Your task to perform on an android device: Set the phone to "Do not disturb". Image 0: 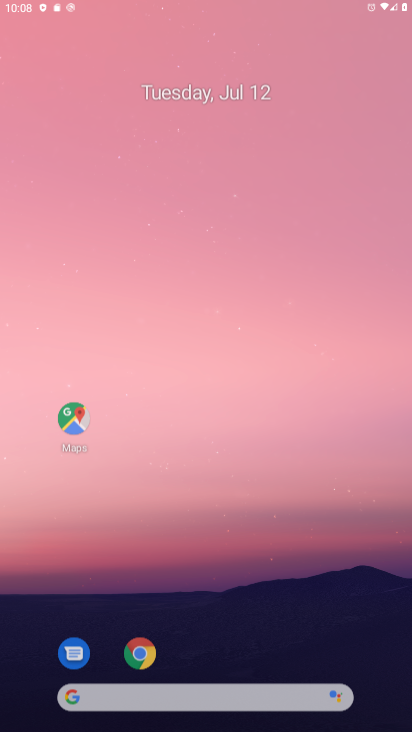
Step 0: click (201, 38)
Your task to perform on an android device: Set the phone to "Do not disturb". Image 1: 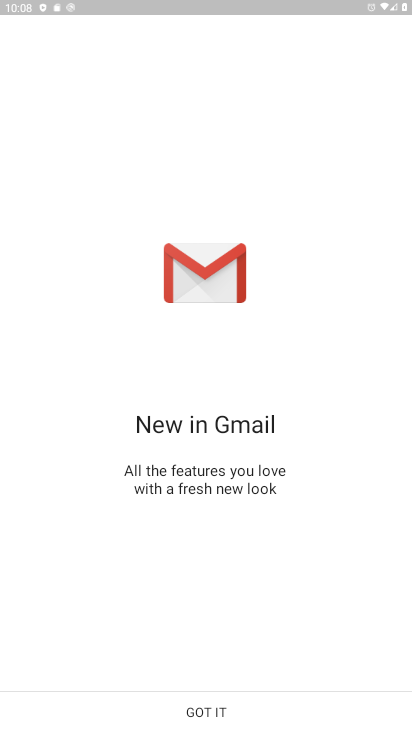
Step 1: press home button
Your task to perform on an android device: Set the phone to "Do not disturb". Image 2: 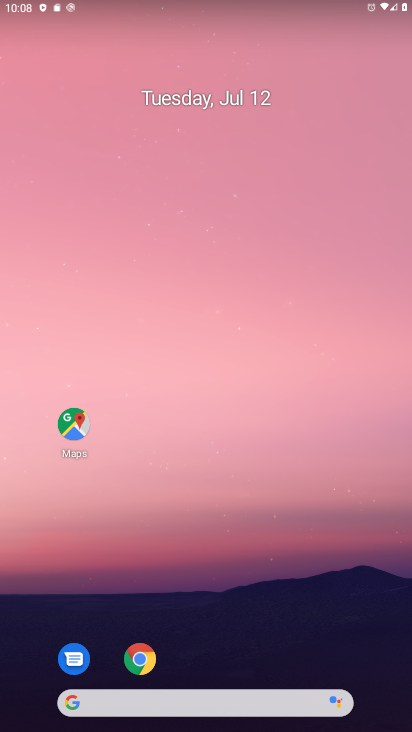
Step 2: drag from (192, 701) to (185, 82)
Your task to perform on an android device: Set the phone to "Do not disturb". Image 3: 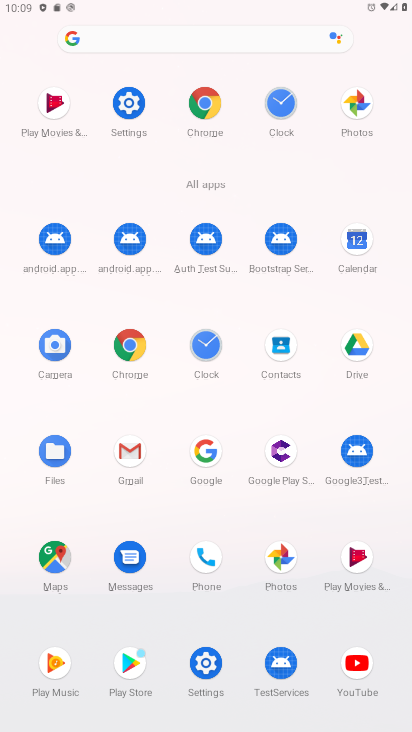
Step 3: click (130, 95)
Your task to perform on an android device: Set the phone to "Do not disturb". Image 4: 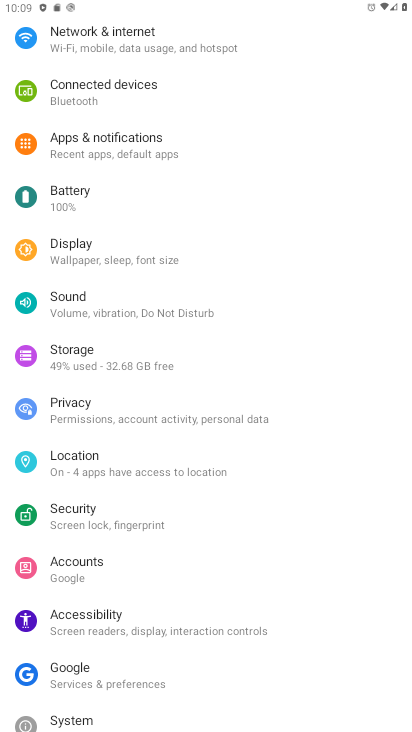
Step 4: click (90, 295)
Your task to perform on an android device: Set the phone to "Do not disturb". Image 5: 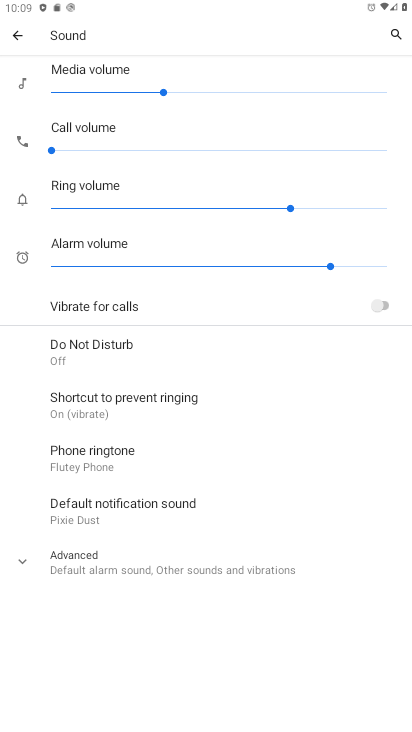
Step 5: click (113, 345)
Your task to perform on an android device: Set the phone to "Do not disturb". Image 6: 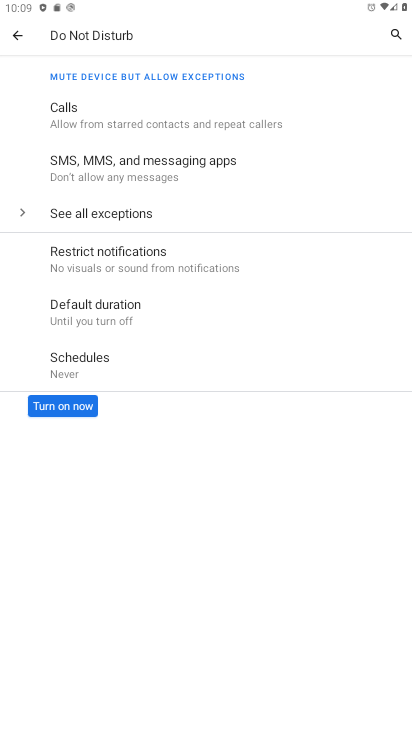
Step 6: click (82, 408)
Your task to perform on an android device: Set the phone to "Do not disturb". Image 7: 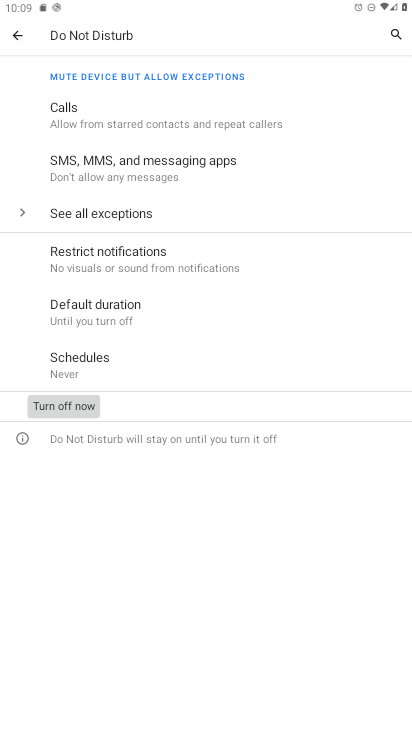
Step 7: task complete